Your task to perform on an android device: turn off priority inbox in the gmail app Image 0: 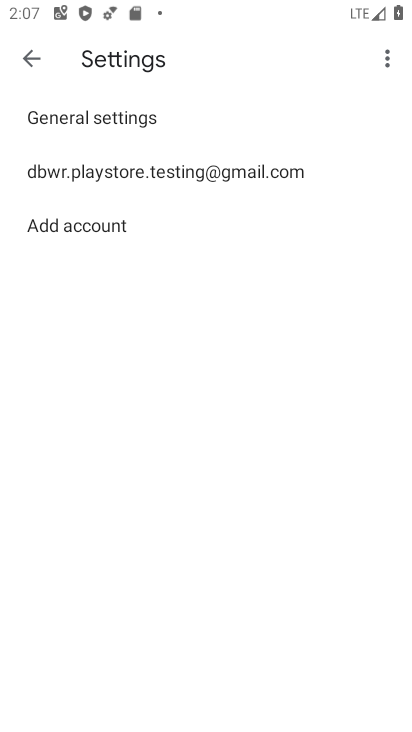
Step 0: click (178, 168)
Your task to perform on an android device: turn off priority inbox in the gmail app Image 1: 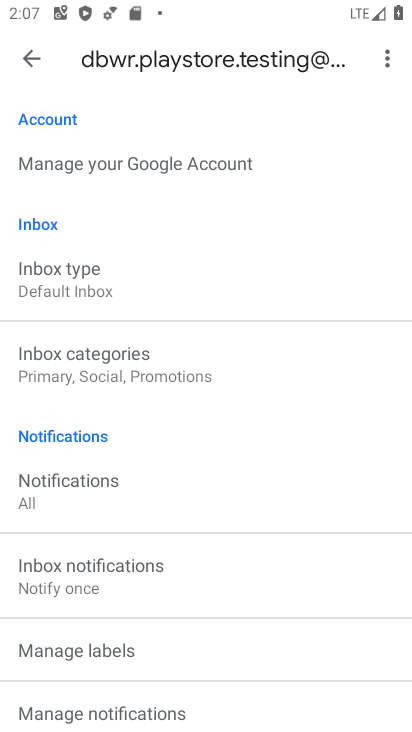
Step 1: click (91, 289)
Your task to perform on an android device: turn off priority inbox in the gmail app Image 2: 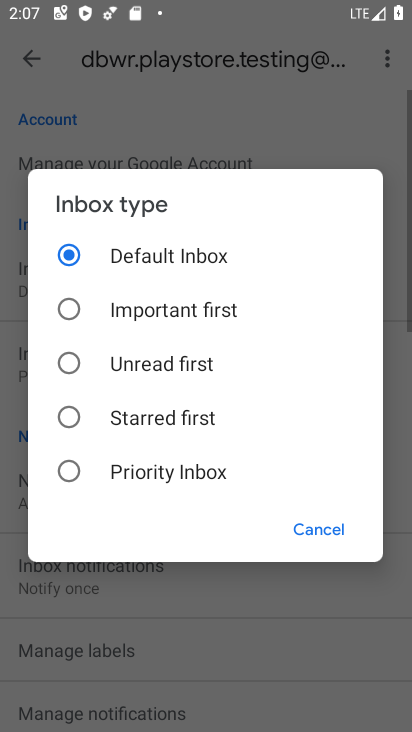
Step 2: task complete